Your task to perform on an android device: toggle sleep mode Image 0: 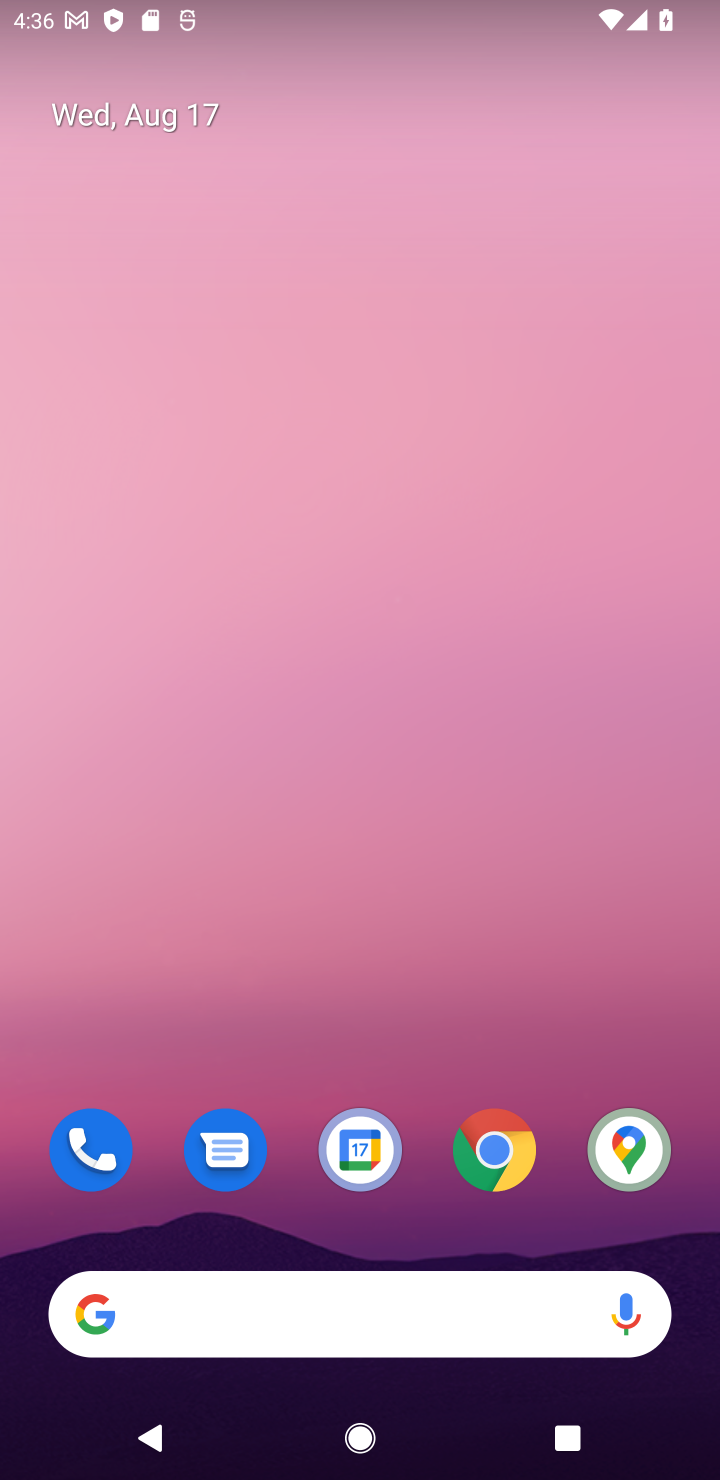
Step 0: drag from (539, 1130) to (242, 113)
Your task to perform on an android device: toggle sleep mode Image 1: 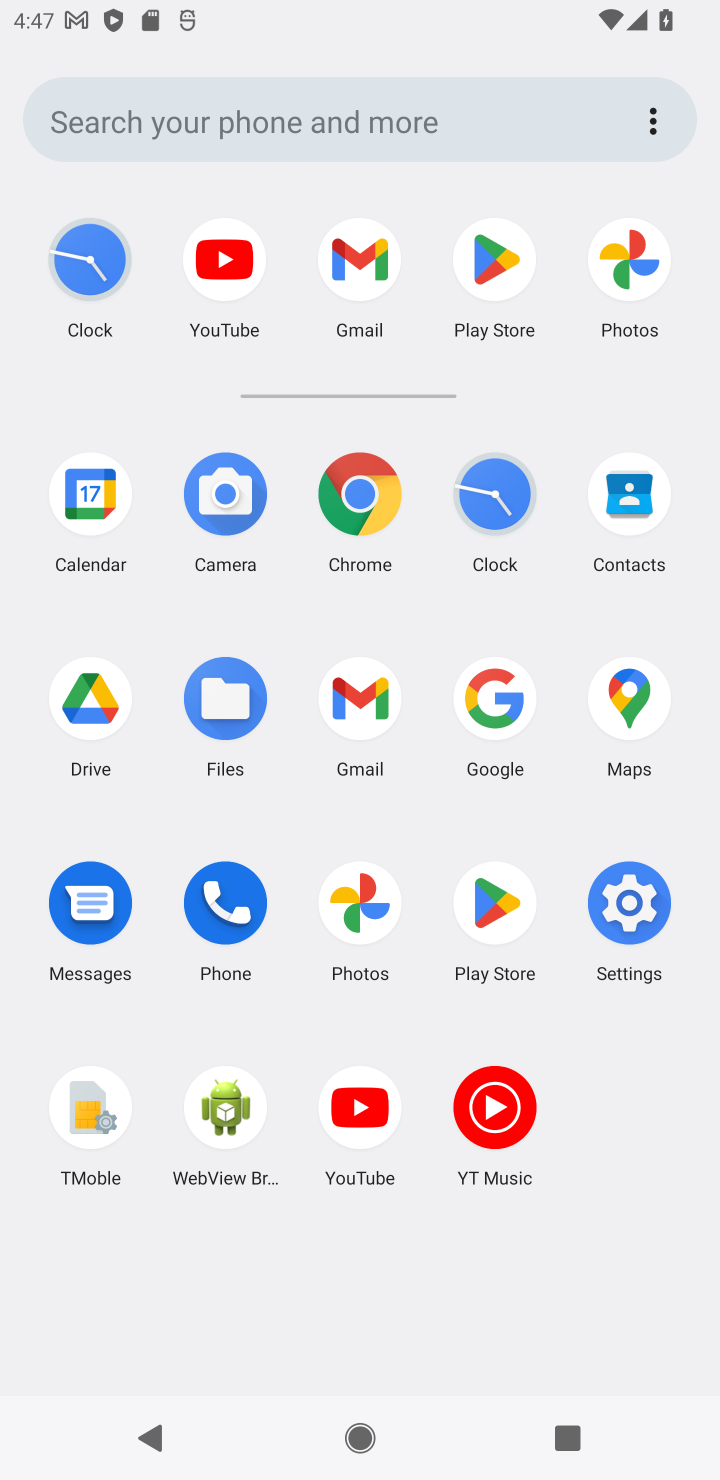
Step 1: press home button
Your task to perform on an android device: toggle sleep mode Image 2: 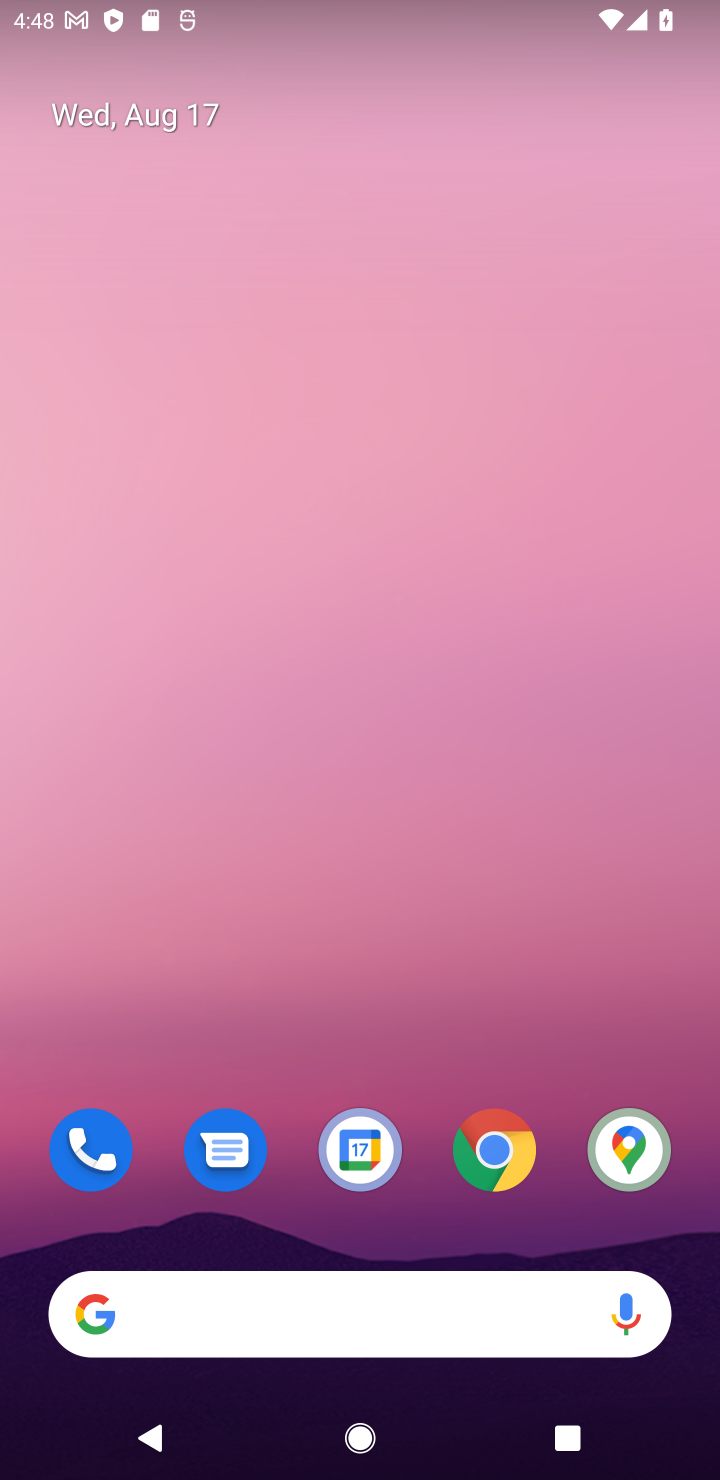
Step 2: drag from (583, 1175) to (325, 14)
Your task to perform on an android device: toggle sleep mode Image 3: 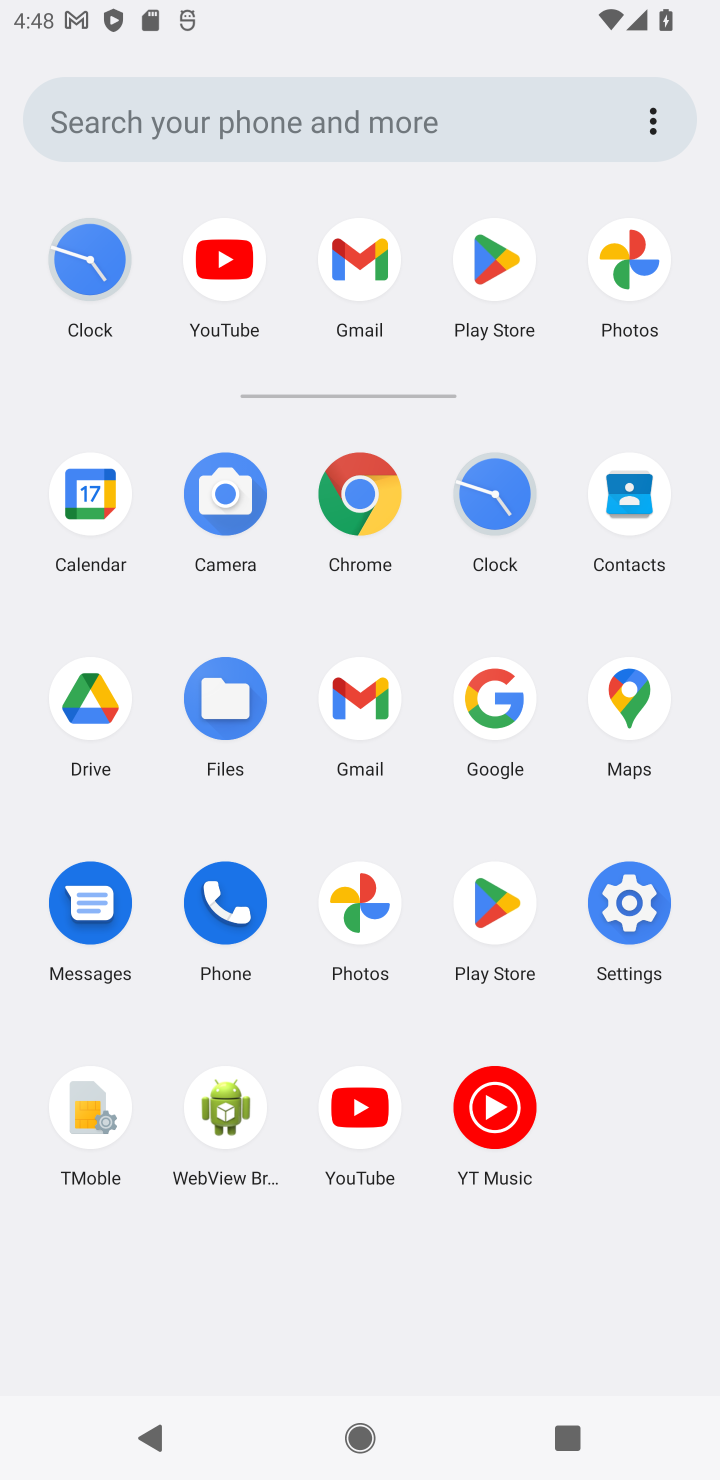
Step 3: click (655, 899)
Your task to perform on an android device: toggle sleep mode Image 4: 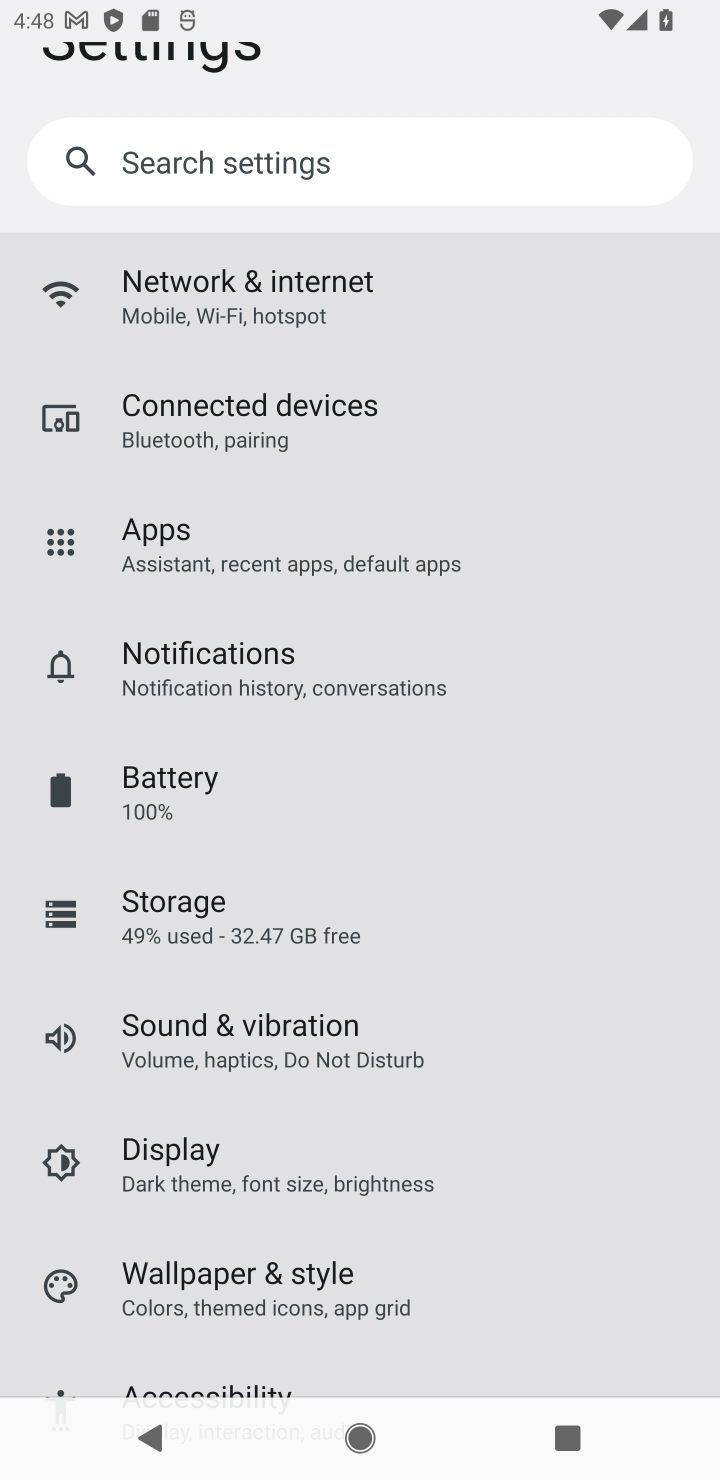
Step 4: task complete